Your task to perform on an android device: set the timer Image 0: 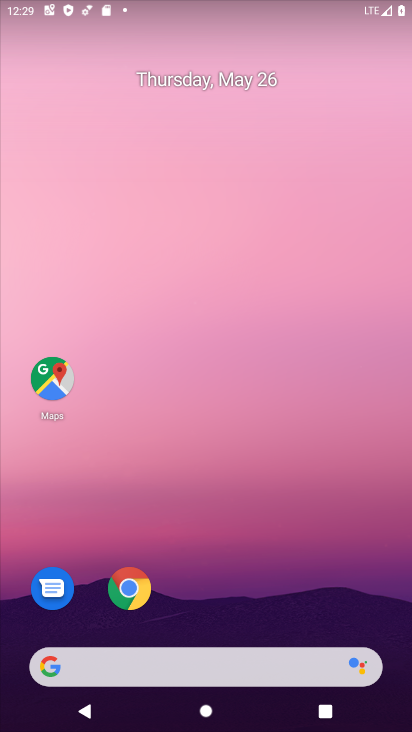
Step 0: drag from (296, 575) to (201, 76)
Your task to perform on an android device: set the timer Image 1: 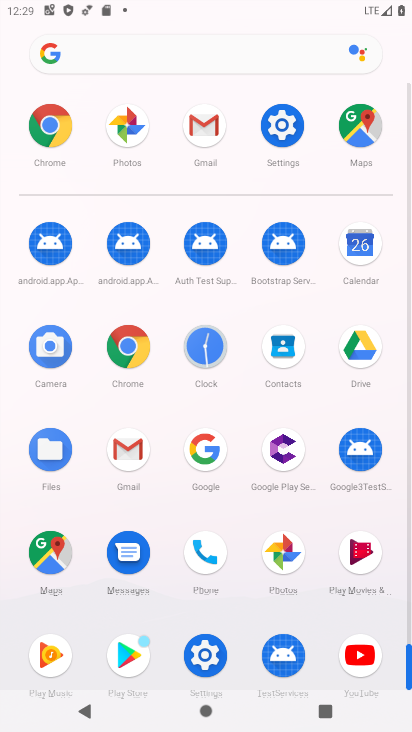
Step 1: click (205, 340)
Your task to perform on an android device: set the timer Image 2: 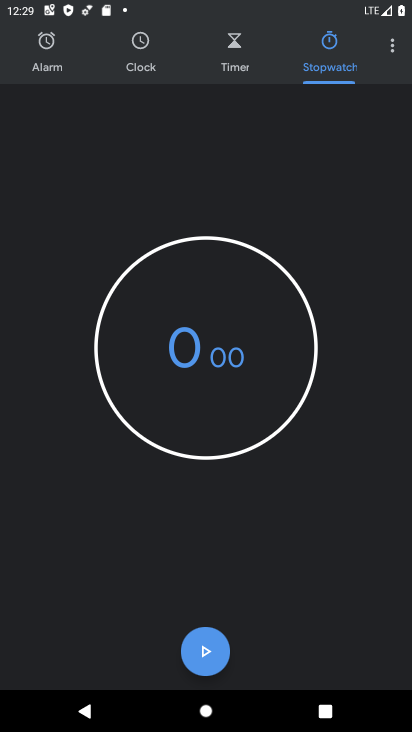
Step 2: click (234, 36)
Your task to perform on an android device: set the timer Image 3: 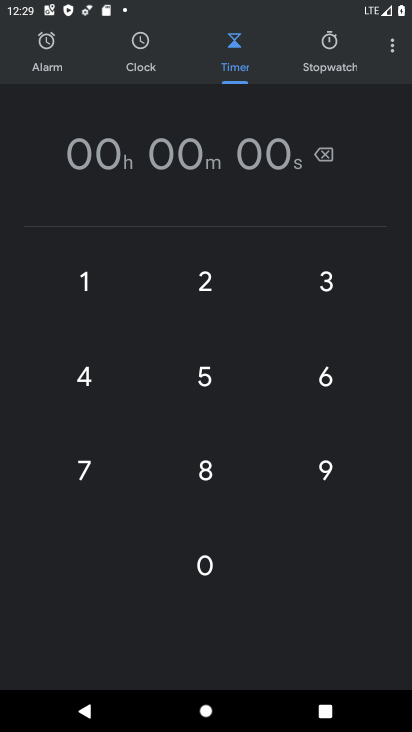
Step 3: click (203, 466)
Your task to perform on an android device: set the timer Image 4: 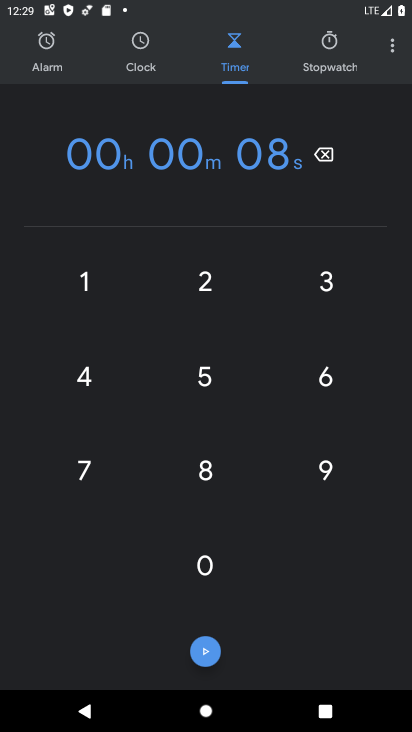
Step 4: click (79, 459)
Your task to perform on an android device: set the timer Image 5: 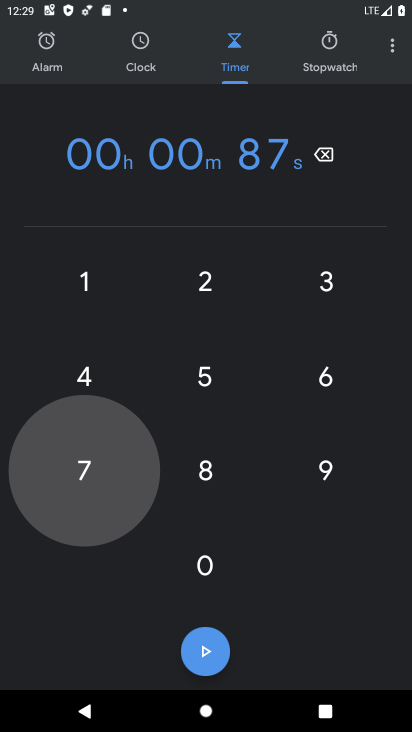
Step 5: click (187, 363)
Your task to perform on an android device: set the timer Image 6: 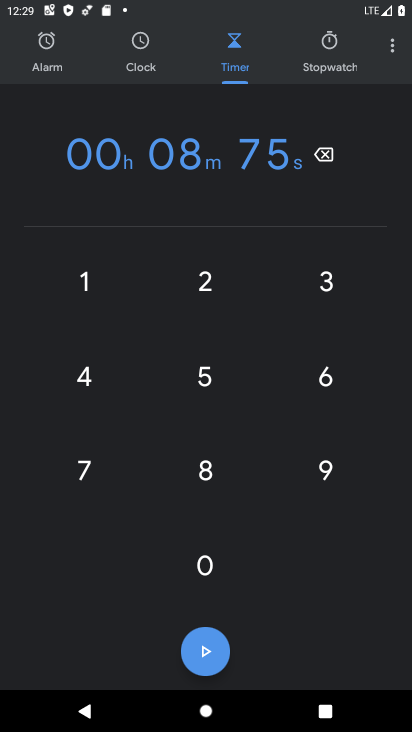
Step 6: click (304, 370)
Your task to perform on an android device: set the timer Image 7: 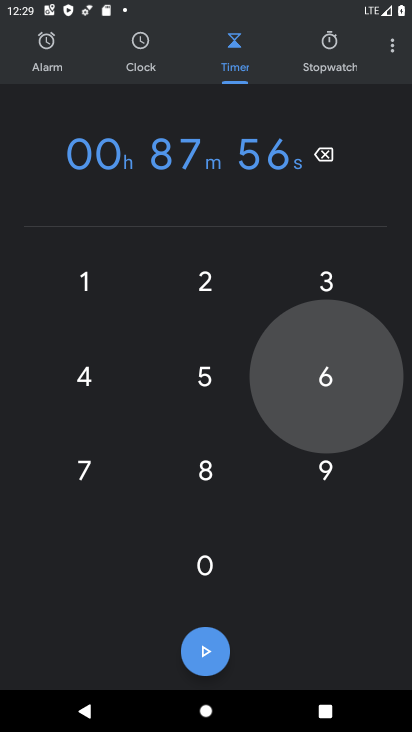
Step 7: click (323, 461)
Your task to perform on an android device: set the timer Image 8: 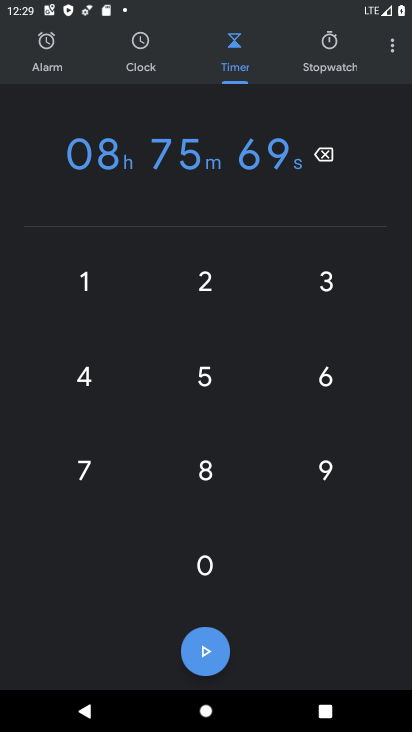
Step 8: click (191, 662)
Your task to perform on an android device: set the timer Image 9: 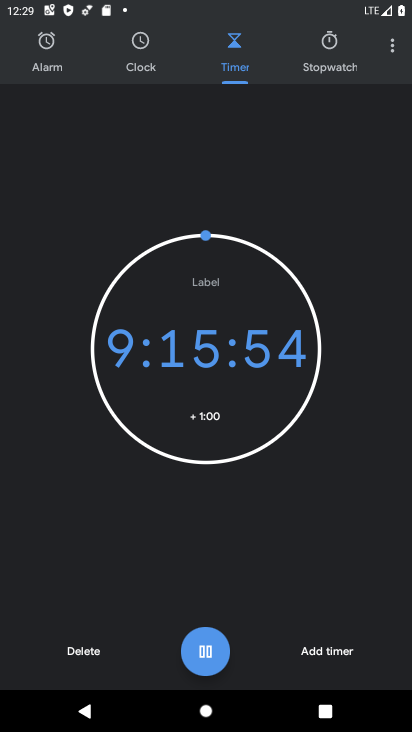
Step 9: task complete